Your task to perform on an android device: turn off notifications settings in the gmail app Image 0: 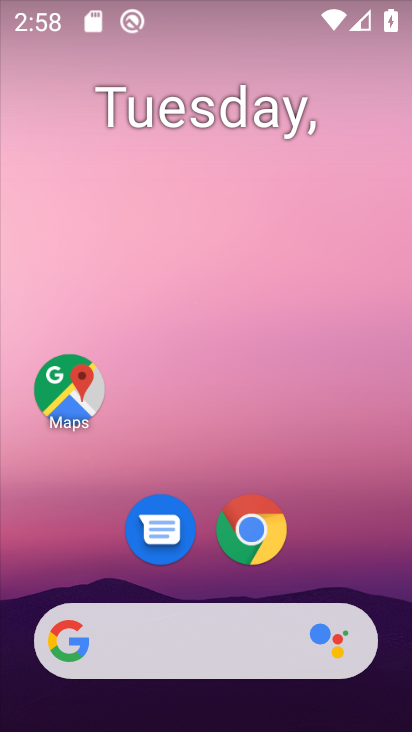
Step 0: press home button
Your task to perform on an android device: turn off notifications settings in the gmail app Image 1: 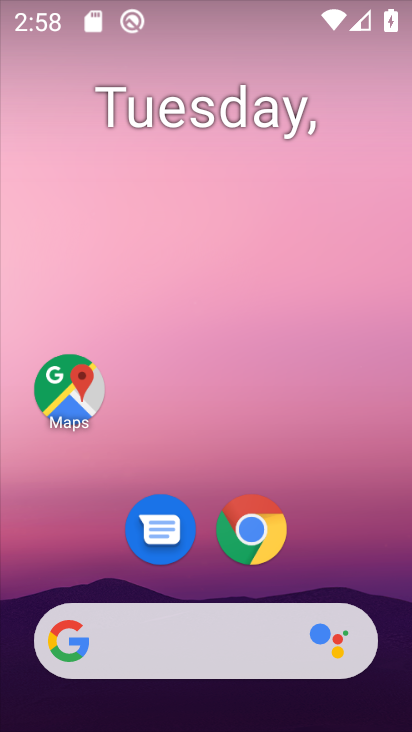
Step 1: drag from (350, 605) to (347, 310)
Your task to perform on an android device: turn off notifications settings in the gmail app Image 2: 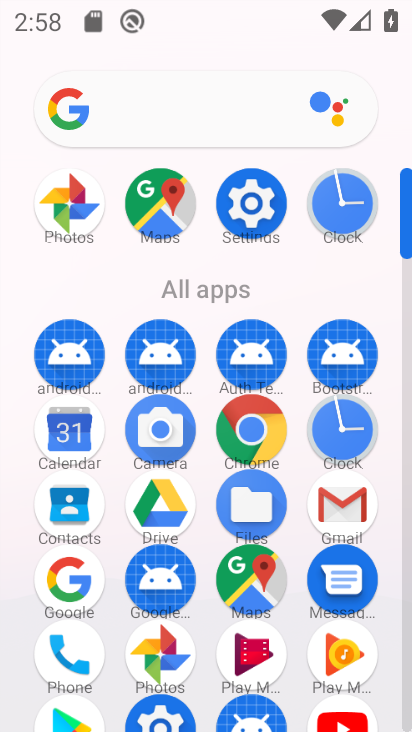
Step 2: click (351, 499)
Your task to perform on an android device: turn off notifications settings in the gmail app Image 3: 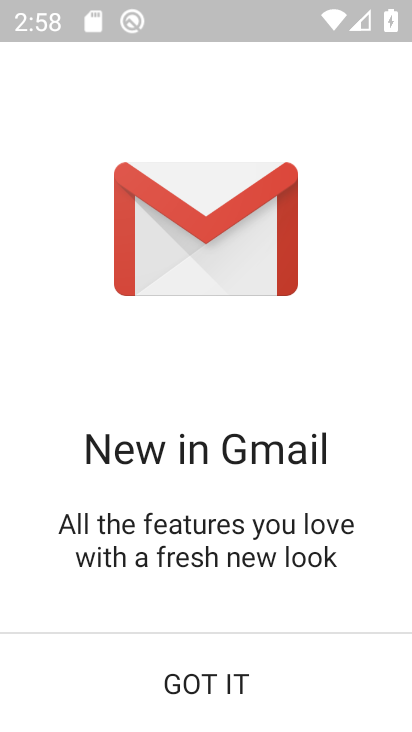
Step 3: click (227, 680)
Your task to perform on an android device: turn off notifications settings in the gmail app Image 4: 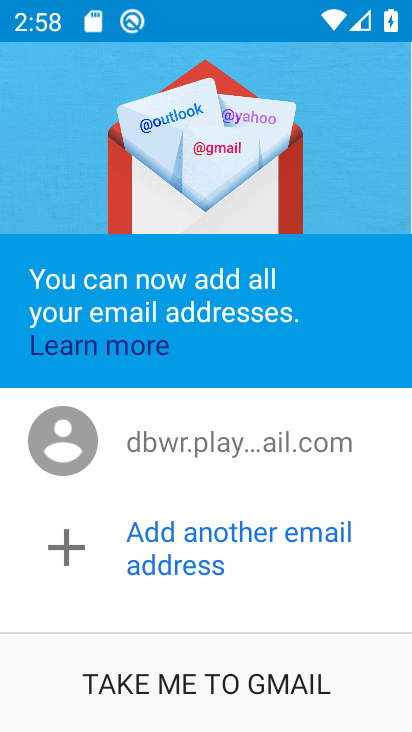
Step 4: click (225, 679)
Your task to perform on an android device: turn off notifications settings in the gmail app Image 5: 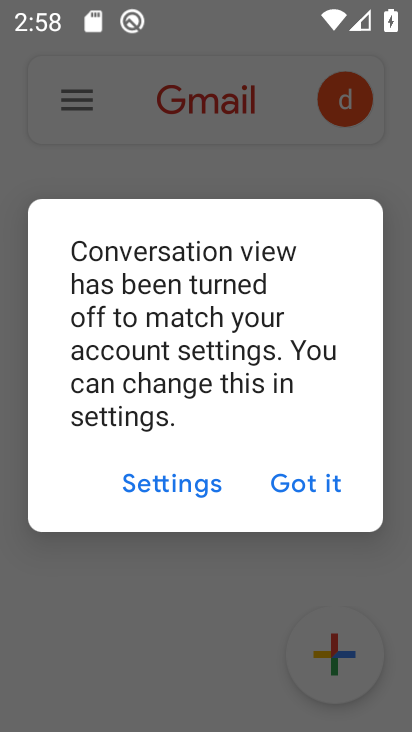
Step 5: click (293, 483)
Your task to perform on an android device: turn off notifications settings in the gmail app Image 6: 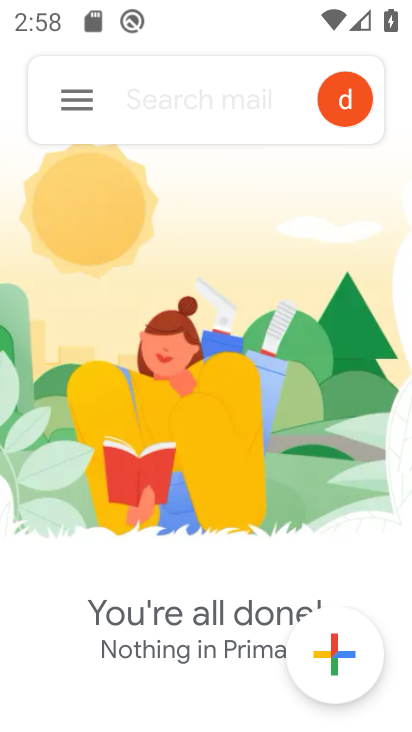
Step 6: click (75, 95)
Your task to perform on an android device: turn off notifications settings in the gmail app Image 7: 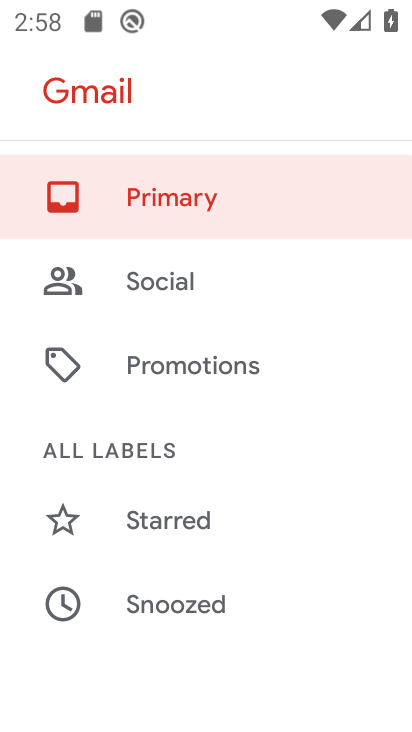
Step 7: drag from (296, 614) to (260, 60)
Your task to perform on an android device: turn off notifications settings in the gmail app Image 8: 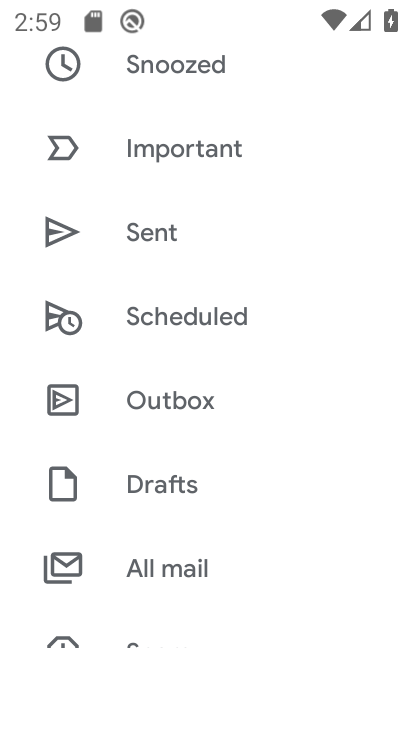
Step 8: drag from (322, 588) to (295, 131)
Your task to perform on an android device: turn off notifications settings in the gmail app Image 9: 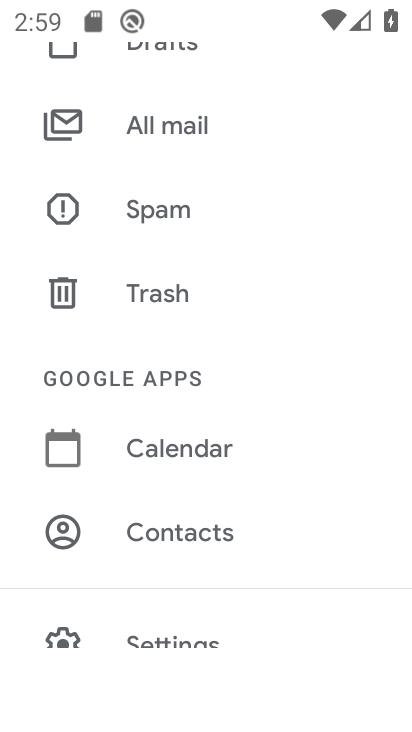
Step 9: click (141, 640)
Your task to perform on an android device: turn off notifications settings in the gmail app Image 10: 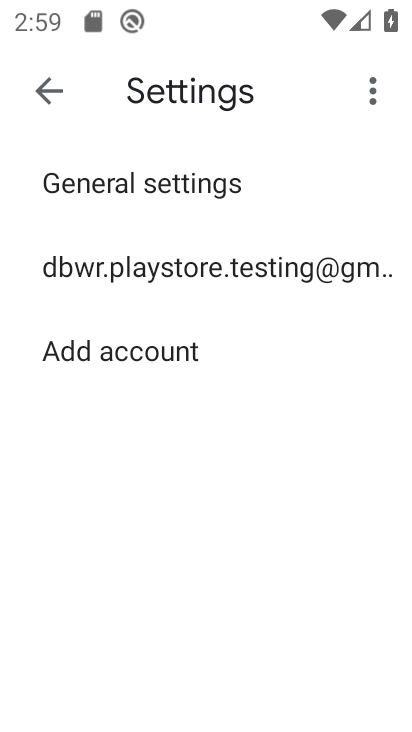
Step 10: click (150, 267)
Your task to perform on an android device: turn off notifications settings in the gmail app Image 11: 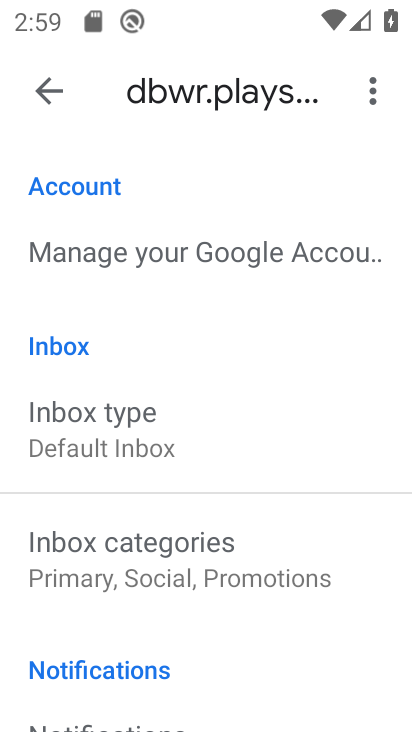
Step 11: drag from (341, 491) to (316, 87)
Your task to perform on an android device: turn off notifications settings in the gmail app Image 12: 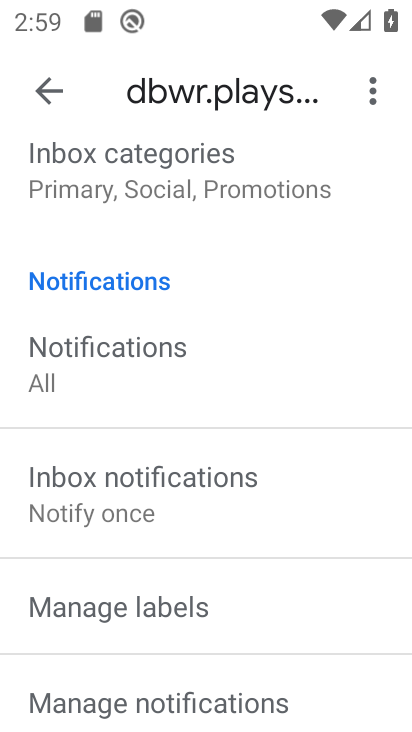
Step 12: click (222, 699)
Your task to perform on an android device: turn off notifications settings in the gmail app Image 13: 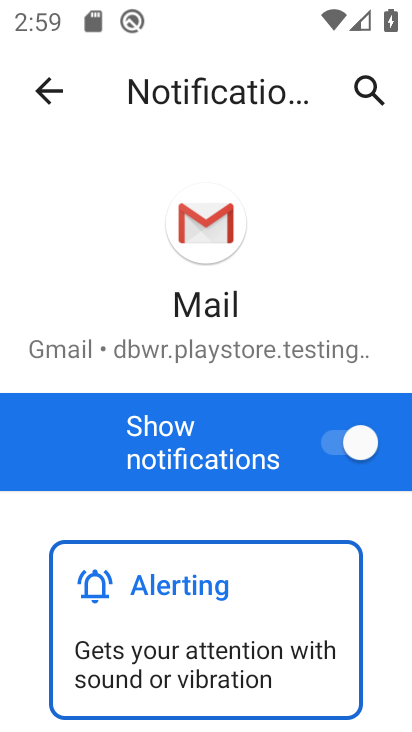
Step 13: click (334, 438)
Your task to perform on an android device: turn off notifications settings in the gmail app Image 14: 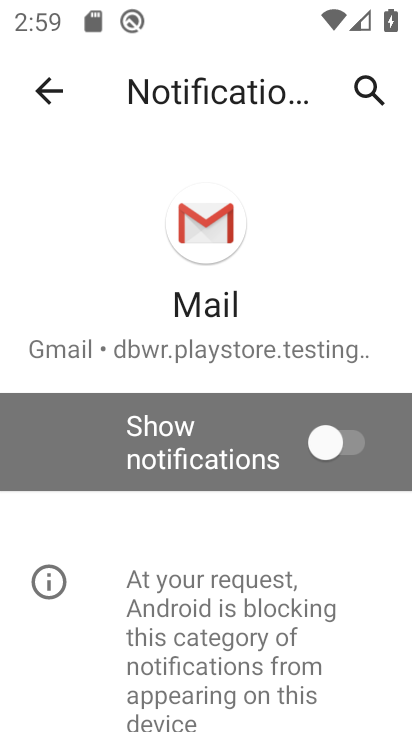
Step 14: task complete